Your task to perform on an android device: Open Android settings Image 0: 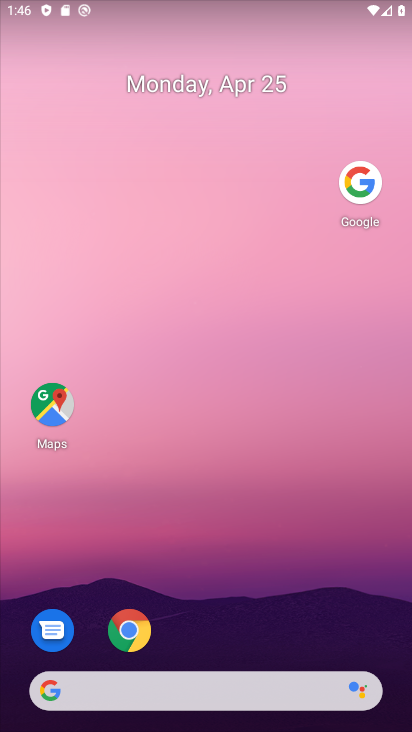
Step 0: drag from (185, 658) to (110, 18)
Your task to perform on an android device: Open Android settings Image 1: 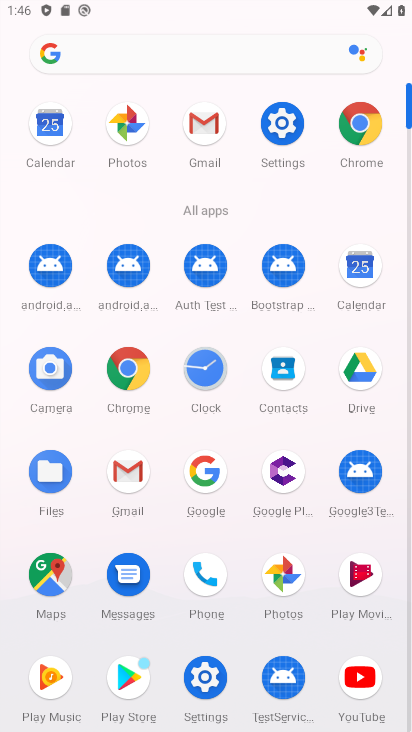
Step 1: click (276, 120)
Your task to perform on an android device: Open Android settings Image 2: 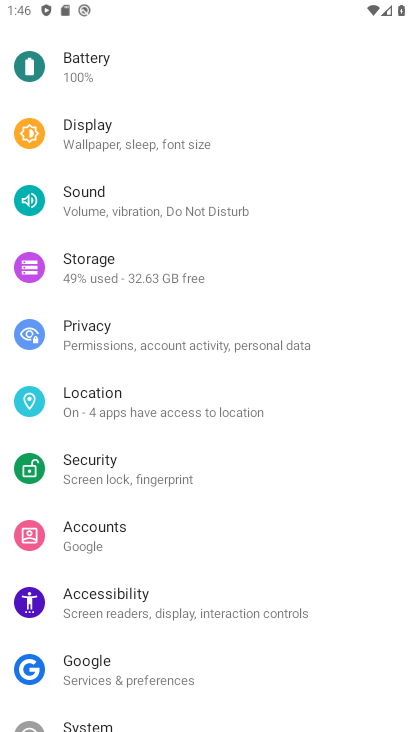
Step 2: task complete